Your task to perform on an android device: toggle translation in the chrome app Image 0: 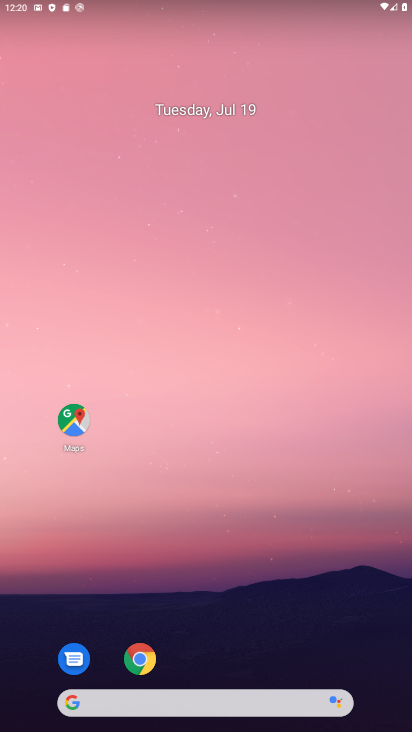
Step 0: click (147, 656)
Your task to perform on an android device: toggle translation in the chrome app Image 1: 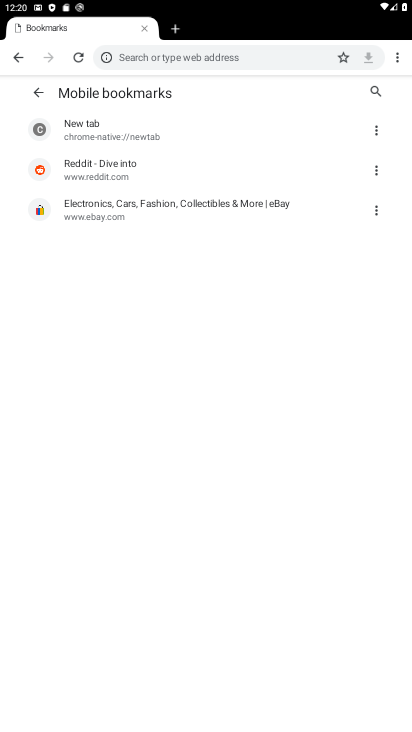
Step 1: drag from (399, 57) to (297, 267)
Your task to perform on an android device: toggle translation in the chrome app Image 2: 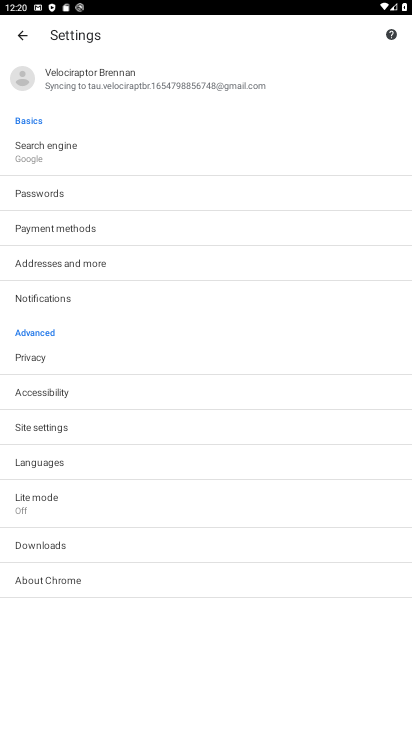
Step 2: click (63, 467)
Your task to perform on an android device: toggle translation in the chrome app Image 3: 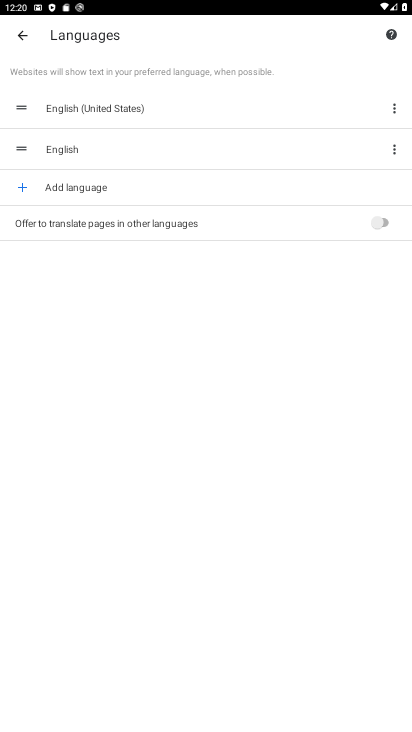
Step 3: click (379, 229)
Your task to perform on an android device: toggle translation in the chrome app Image 4: 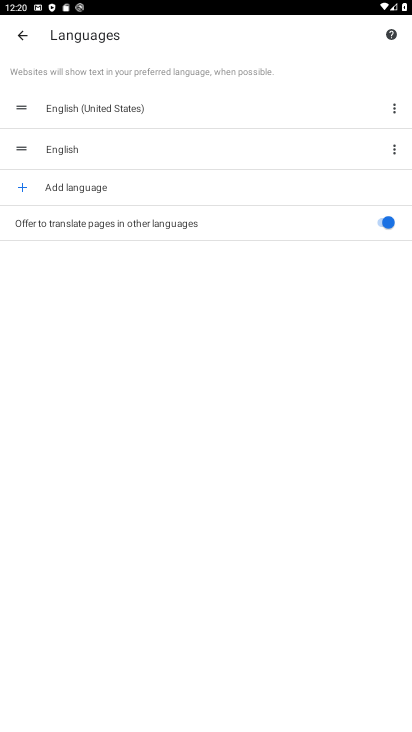
Step 4: task complete